Your task to perform on an android device: check storage Image 0: 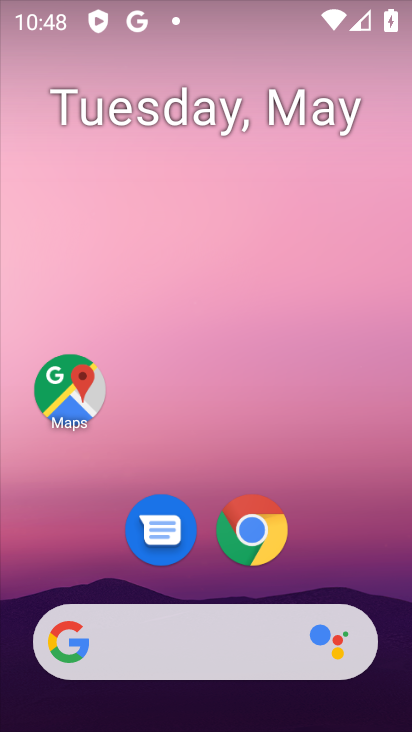
Step 0: drag from (347, 513) to (342, 125)
Your task to perform on an android device: check storage Image 1: 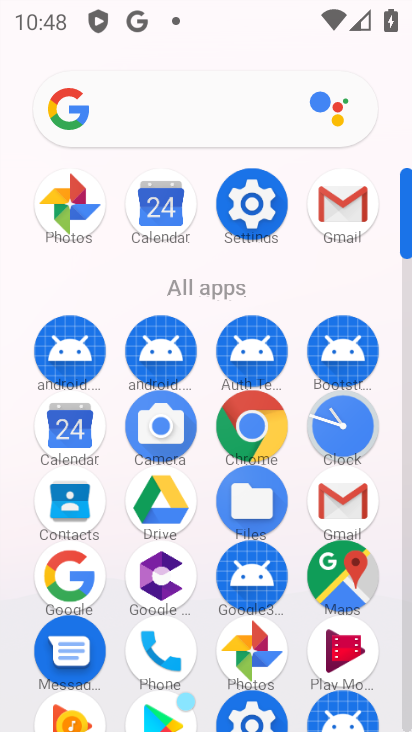
Step 1: click (245, 196)
Your task to perform on an android device: check storage Image 2: 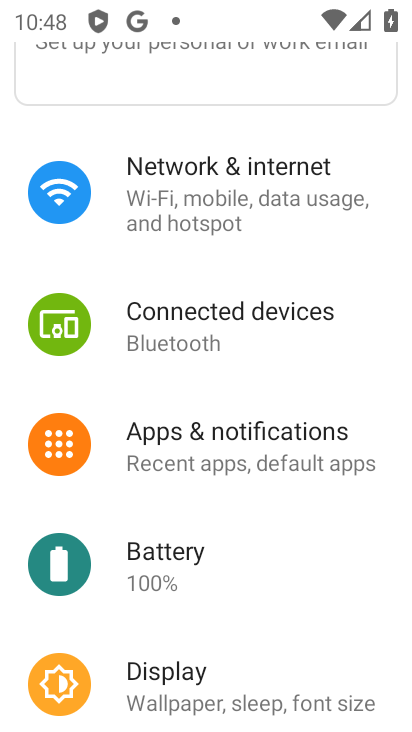
Step 2: drag from (231, 542) to (287, 266)
Your task to perform on an android device: check storage Image 3: 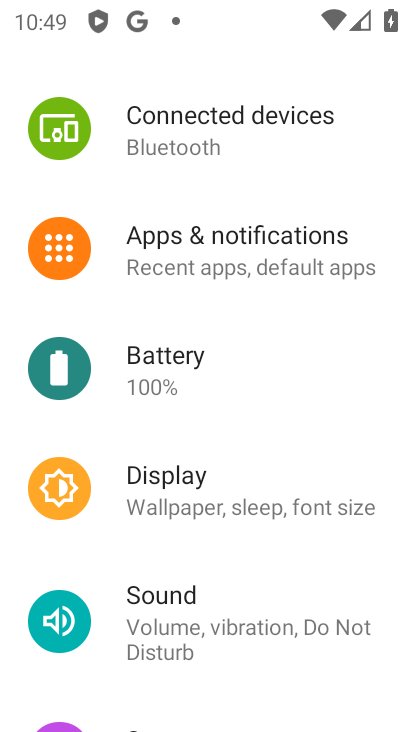
Step 3: drag from (238, 607) to (309, 200)
Your task to perform on an android device: check storage Image 4: 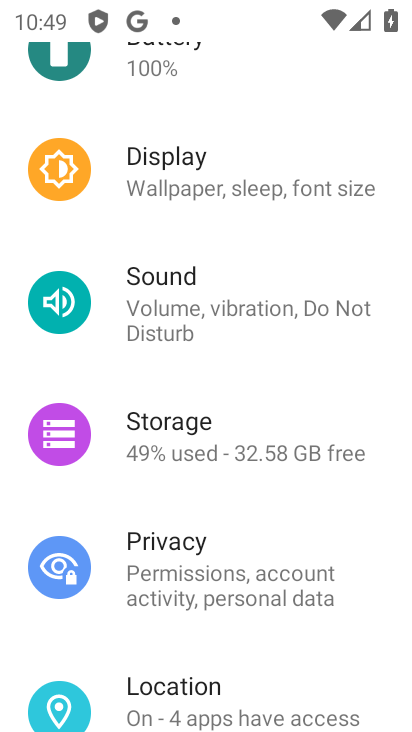
Step 4: click (214, 455)
Your task to perform on an android device: check storage Image 5: 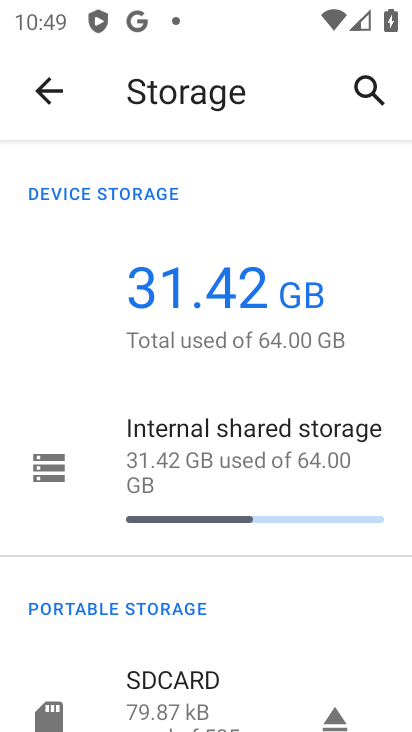
Step 5: task complete